Your task to perform on an android device: Open privacy settings Image 0: 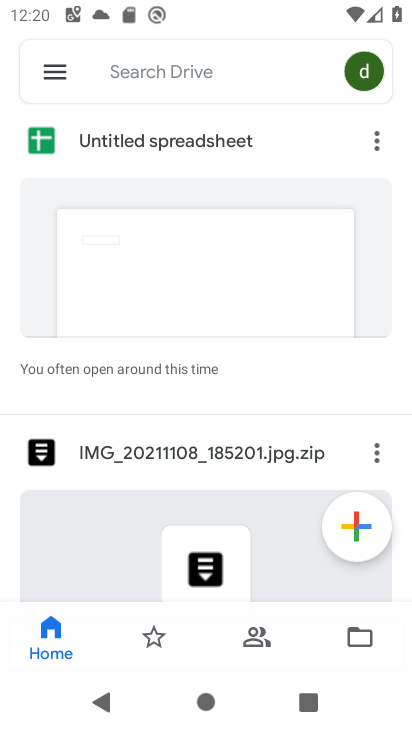
Step 0: press home button
Your task to perform on an android device: Open privacy settings Image 1: 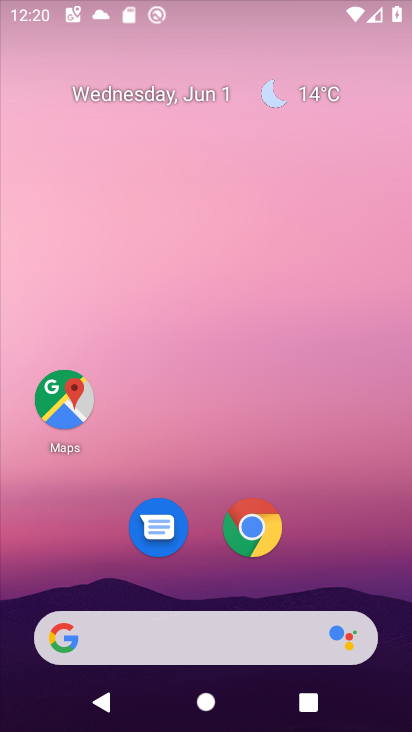
Step 1: drag from (334, 548) to (256, 12)
Your task to perform on an android device: Open privacy settings Image 2: 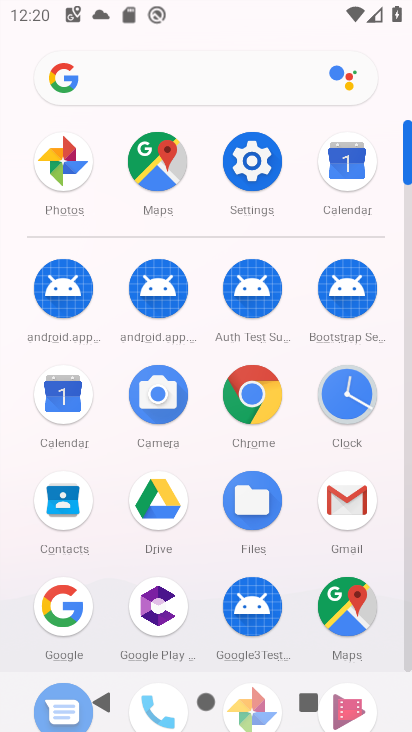
Step 2: click (248, 190)
Your task to perform on an android device: Open privacy settings Image 3: 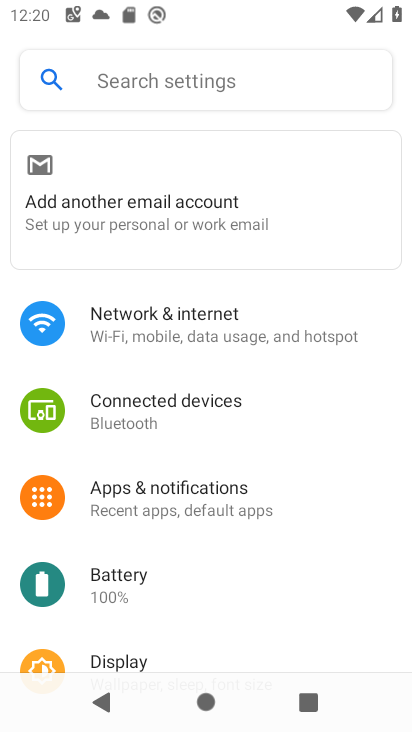
Step 3: drag from (315, 510) to (313, 176)
Your task to perform on an android device: Open privacy settings Image 4: 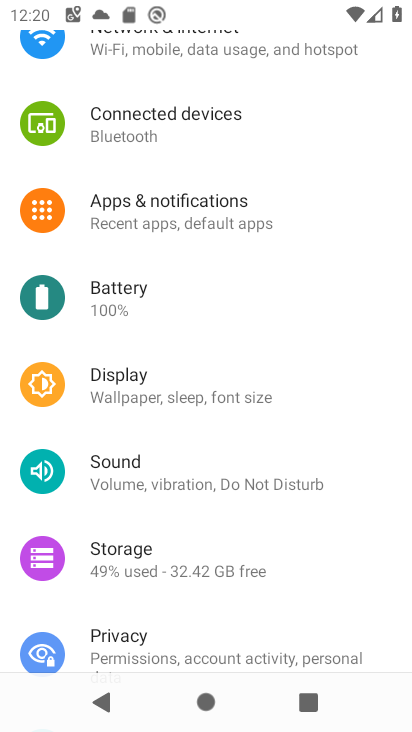
Step 4: drag from (311, 575) to (322, 411)
Your task to perform on an android device: Open privacy settings Image 5: 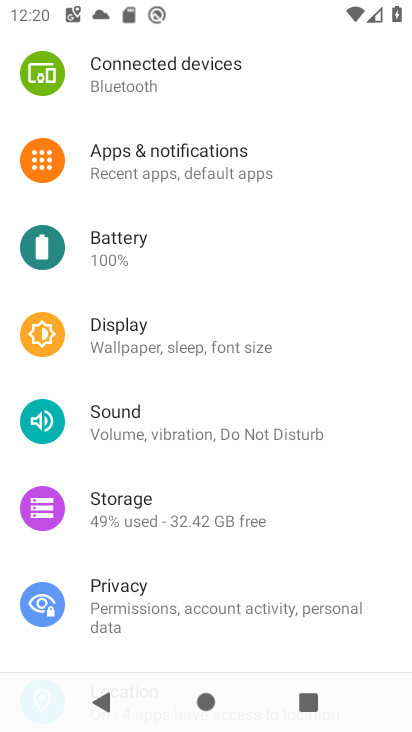
Step 5: click (113, 605)
Your task to perform on an android device: Open privacy settings Image 6: 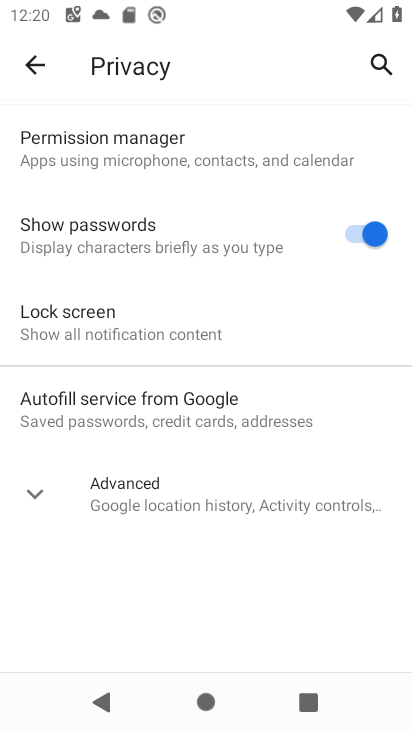
Step 6: task complete